Your task to perform on an android device: Search for seafood restaurants on Google Maps Image 0: 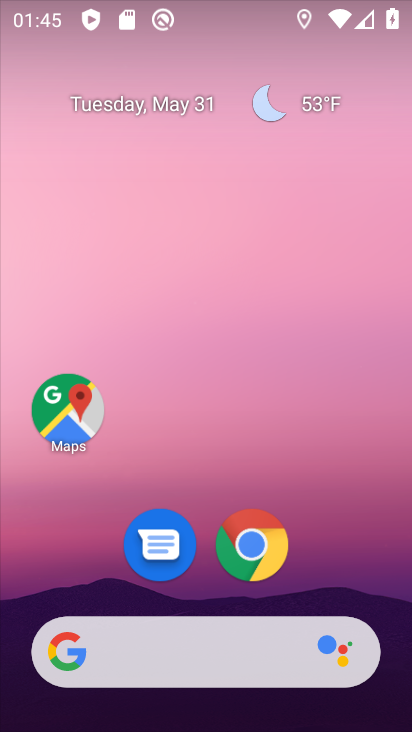
Step 0: click (258, 236)
Your task to perform on an android device: Search for seafood restaurants on Google Maps Image 1: 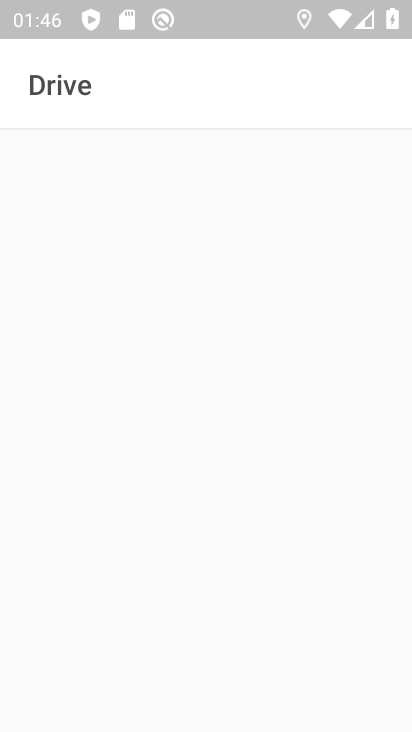
Step 1: press home button
Your task to perform on an android device: Search for seafood restaurants on Google Maps Image 2: 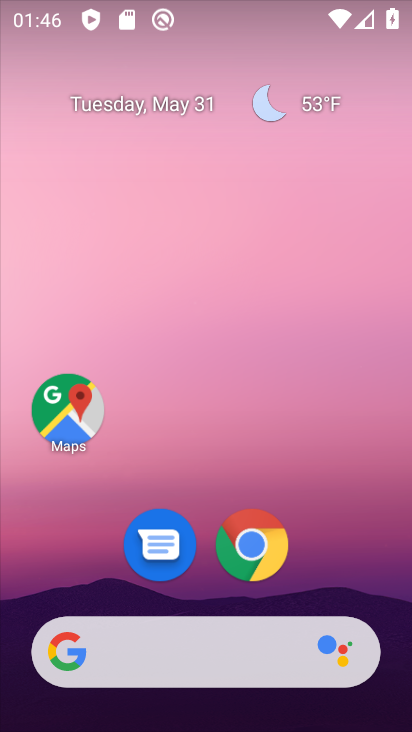
Step 2: click (55, 412)
Your task to perform on an android device: Search for seafood restaurants on Google Maps Image 3: 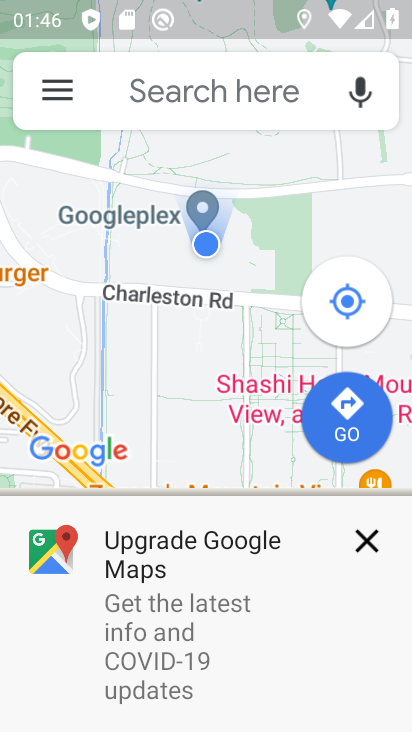
Step 3: click (202, 107)
Your task to perform on an android device: Search for seafood restaurants on Google Maps Image 4: 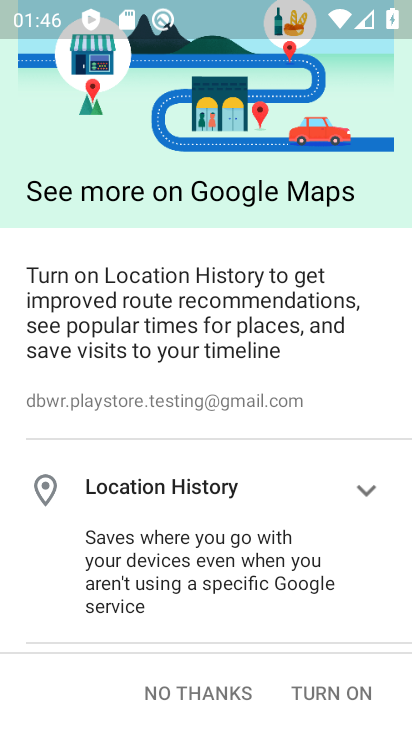
Step 4: click (329, 698)
Your task to perform on an android device: Search for seafood restaurants on Google Maps Image 5: 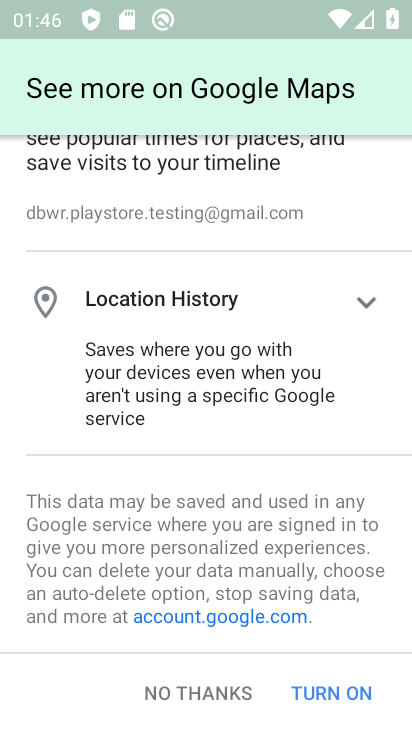
Step 5: click (329, 690)
Your task to perform on an android device: Search for seafood restaurants on Google Maps Image 6: 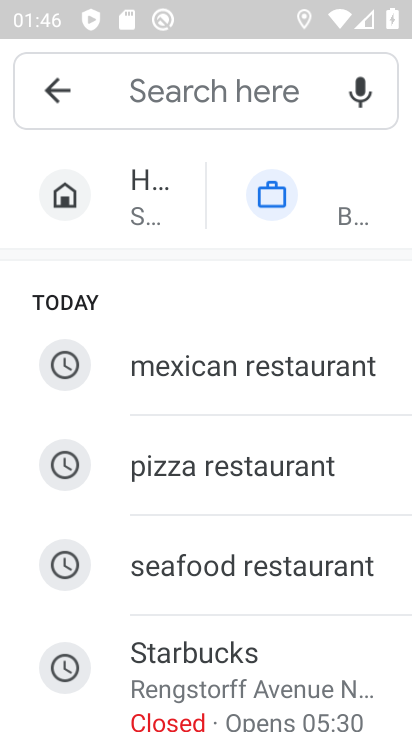
Step 6: click (257, 574)
Your task to perform on an android device: Search for seafood restaurants on Google Maps Image 7: 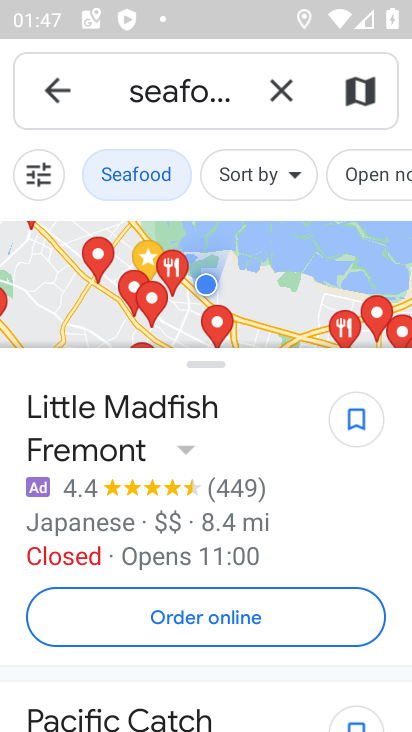
Step 7: task complete